Your task to perform on an android device: make emails show in primary in the gmail app Image 0: 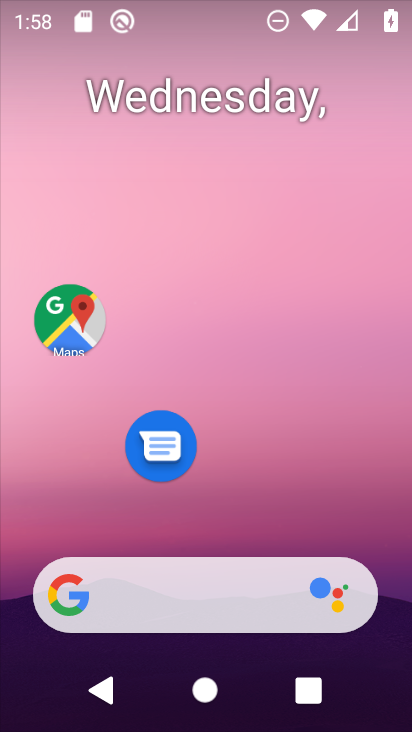
Step 0: drag from (319, 466) to (219, 19)
Your task to perform on an android device: make emails show in primary in the gmail app Image 1: 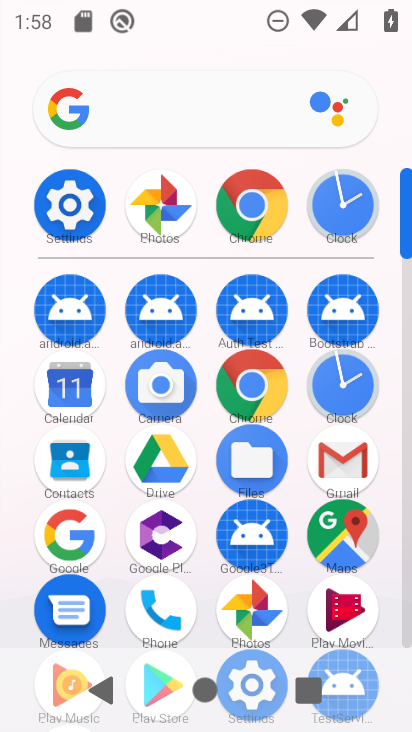
Step 1: click (361, 465)
Your task to perform on an android device: make emails show in primary in the gmail app Image 2: 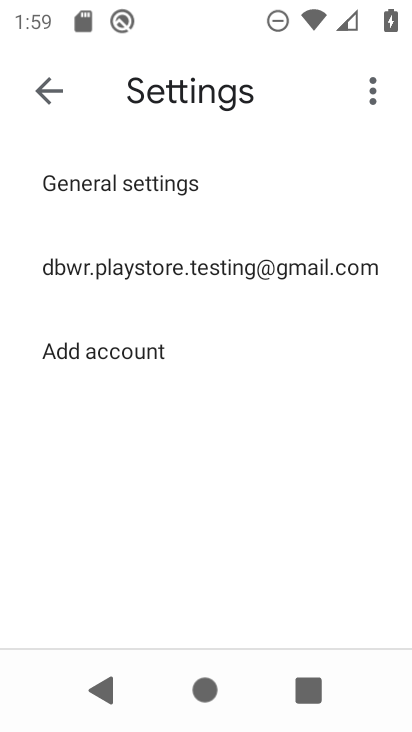
Step 2: click (72, 79)
Your task to perform on an android device: make emails show in primary in the gmail app Image 3: 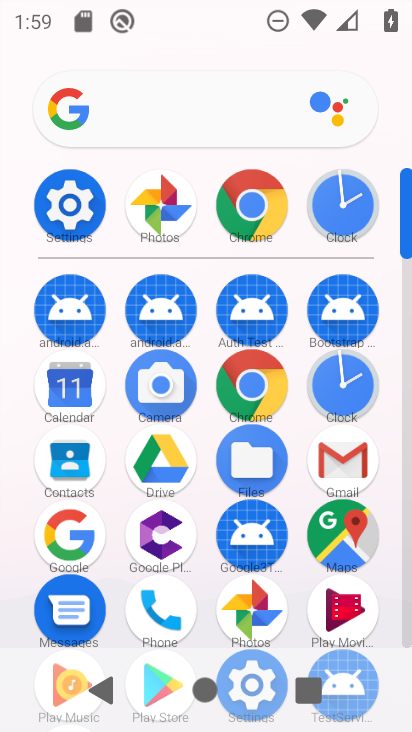
Step 3: click (357, 475)
Your task to perform on an android device: make emails show in primary in the gmail app Image 4: 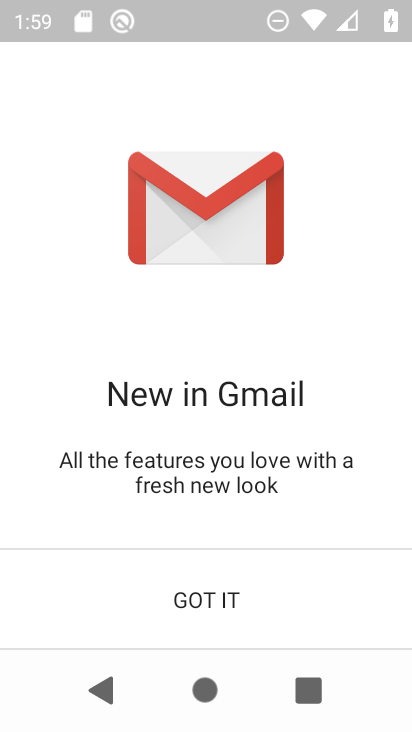
Step 4: click (247, 581)
Your task to perform on an android device: make emails show in primary in the gmail app Image 5: 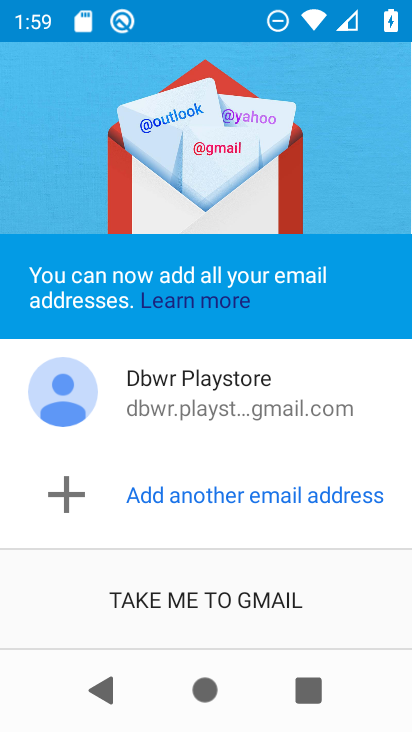
Step 5: click (247, 581)
Your task to perform on an android device: make emails show in primary in the gmail app Image 6: 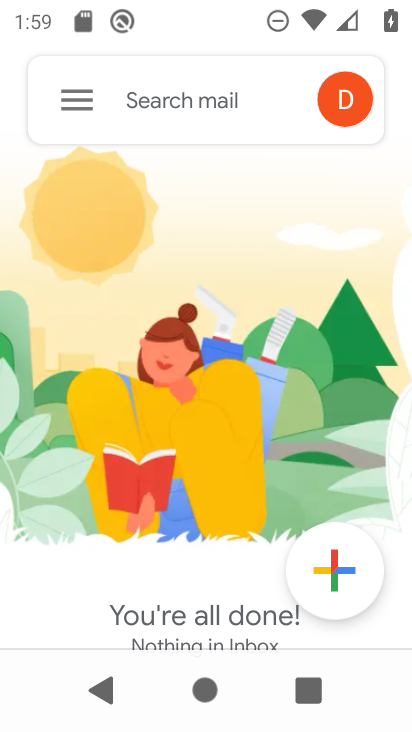
Step 6: click (58, 101)
Your task to perform on an android device: make emails show in primary in the gmail app Image 7: 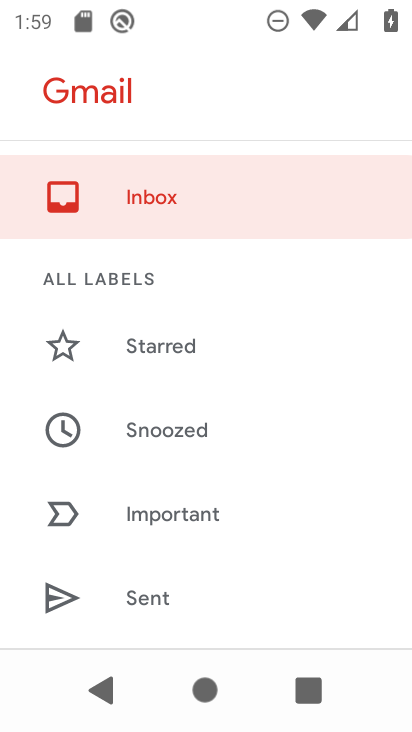
Step 7: drag from (109, 653) to (66, 411)
Your task to perform on an android device: make emails show in primary in the gmail app Image 8: 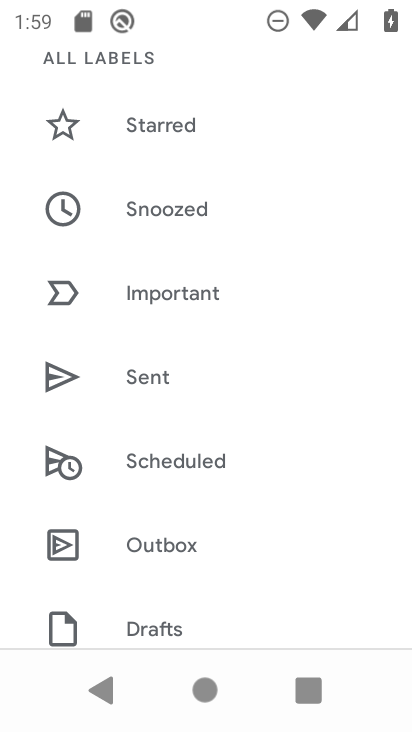
Step 8: drag from (109, 557) to (101, 350)
Your task to perform on an android device: make emails show in primary in the gmail app Image 9: 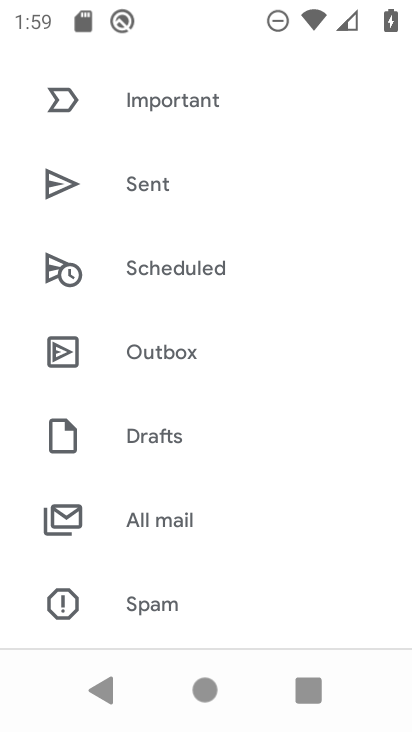
Step 9: click (101, 350)
Your task to perform on an android device: make emails show in primary in the gmail app Image 10: 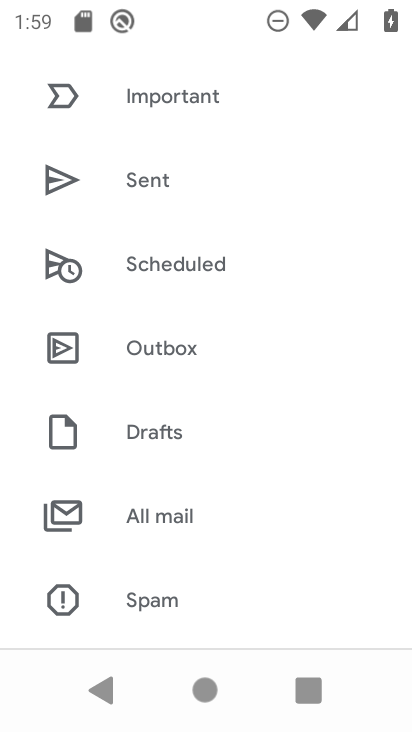
Step 10: drag from (165, 563) to (130, 273)
Your task to perform on an android device: make emails show in primary in the gmail app Image 11: 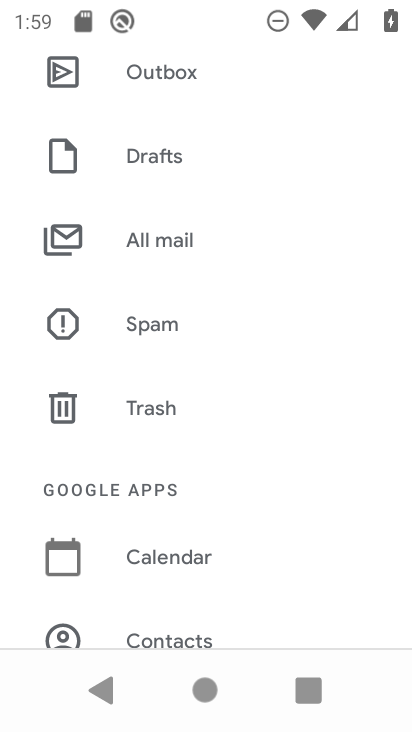
Step 11: drag from (213, 518) to (203, 321)
Your task to perform on an android device: make emails show in primary in the gmail app Image 12: 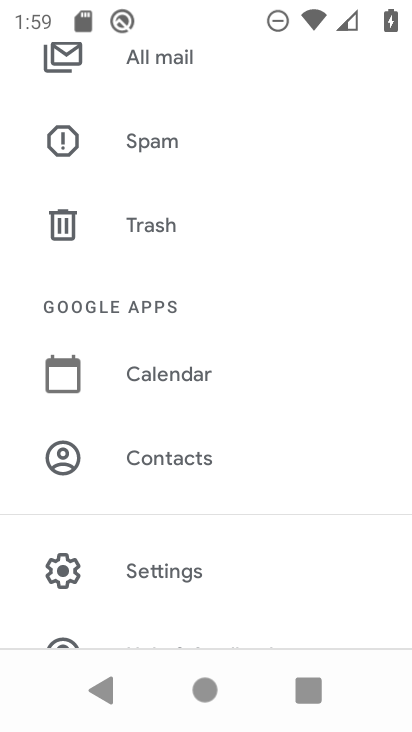
Step 12: click (226, 556)
Your task to perform on an android device: make emails show in primary in the gmail app Image 13: 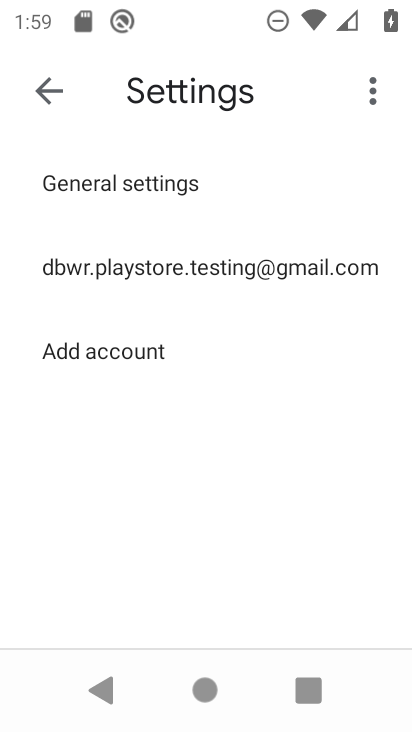
Step 13: click (207, 267)
Your task to perform on an android device: make emails show in primary in the gmail app Image 14: 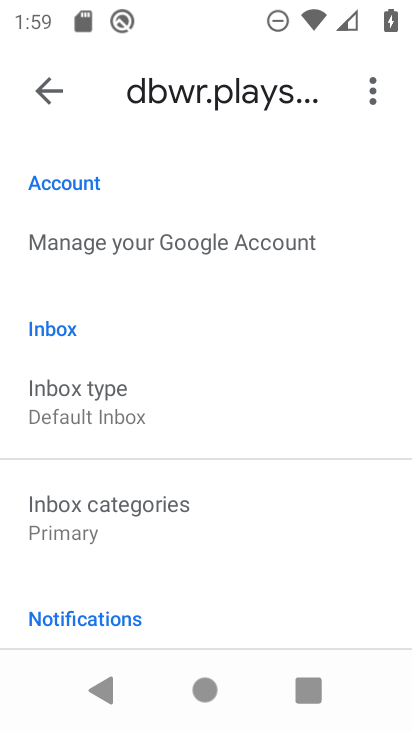
Step 14: drag from (99, 507) to (115, 334)
Your task to perform on an android device: make emails show in primary in the gmail app Image 15: 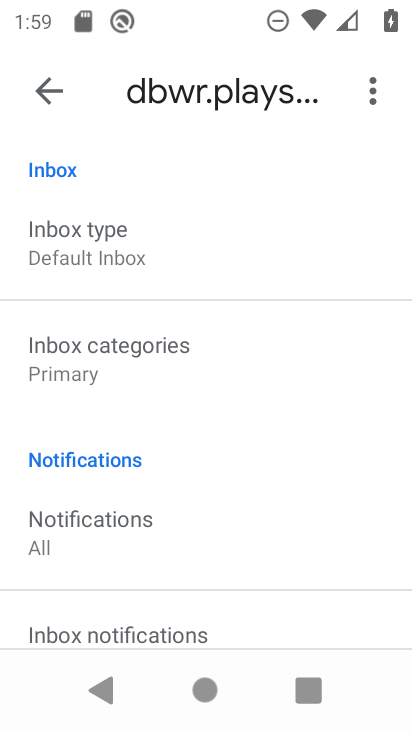
Step 15: click (114, 259)
Your task to perform on an android device: make emails show in primary in the gmail app Image 16: 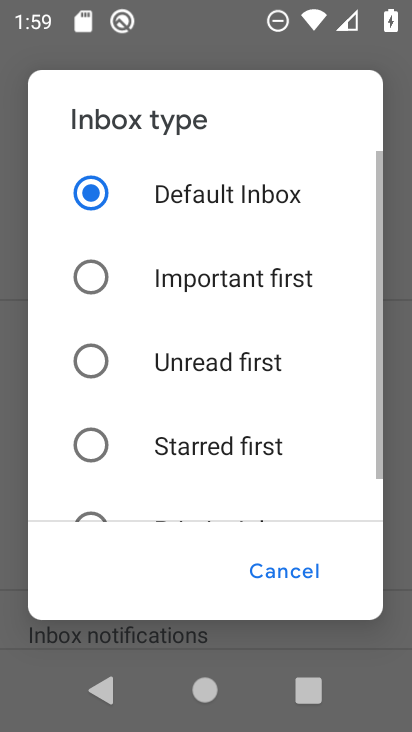
Step 16: drag from (97, 402) to (98, 144)
Your task to perform on an android device: make emails show in primary in the gmail app Image 17: 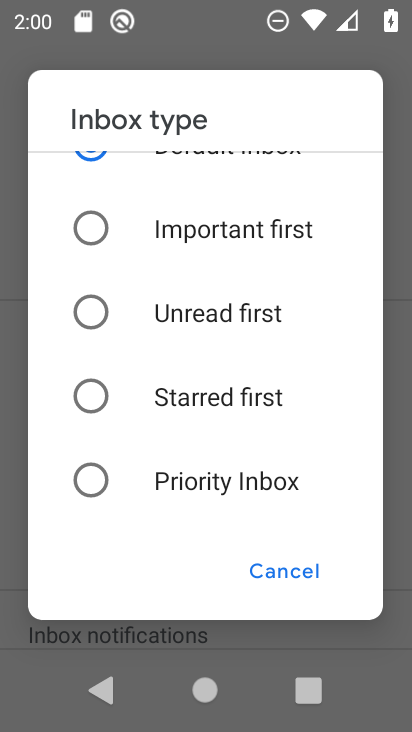
Step 17: click (86, 457)
Your task to perform on an android device: make emails show in primary in the gmail app Image 18: 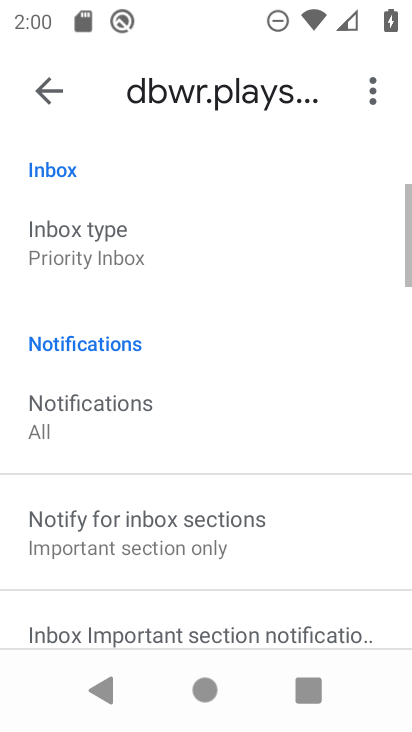
Step 18: task complete